Your task to perform on an android device: find snoozed emails in the gmail app Image 0: 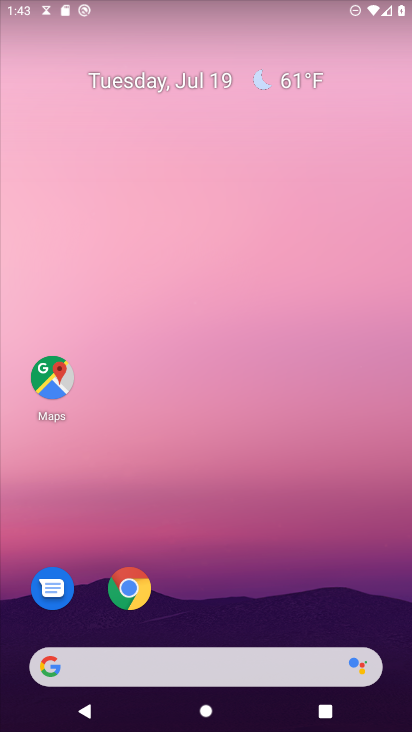
Step 0: drag from (311, 688) to (213, 125)
Your task to perform on an android device: find snoozed emails in the gmail app Image 1: 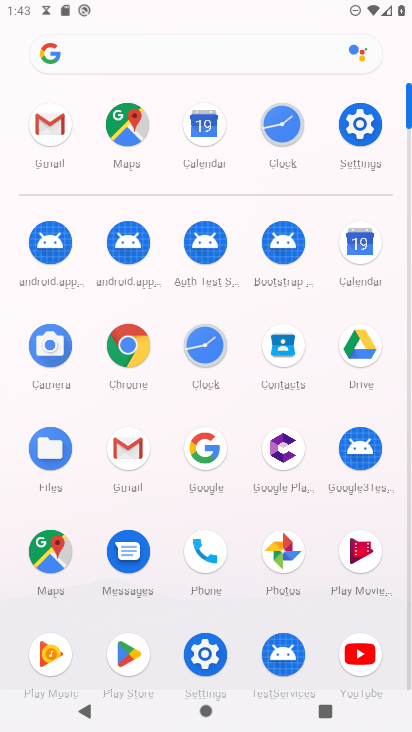
Step 1: click (142, 460)
Your task to perform on an android device: find snoozed emails in the gmail app Image 2: 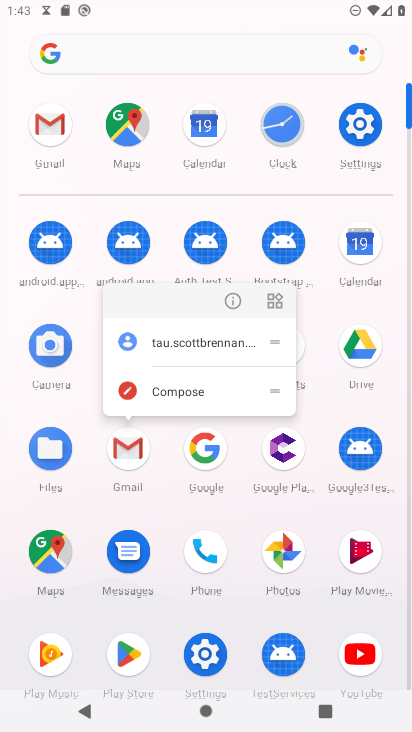
Step 2: click (137, 456)
Your task to perform on an android device: find snoozed emails in the gmail app Image 3: 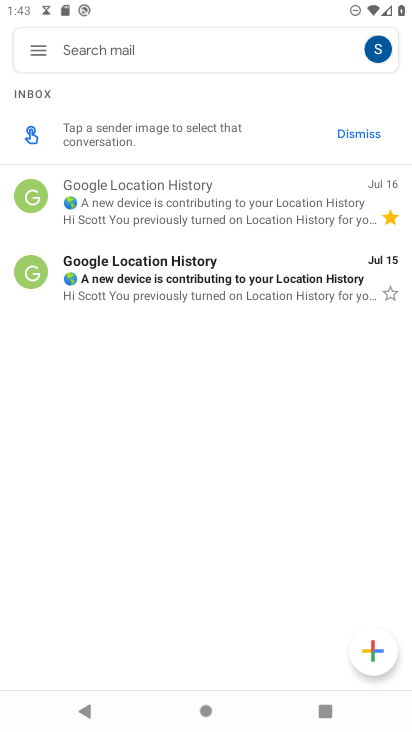
Step 3: click (28, 54)
Your task to perform on an android device: find snoozed emails in the gmail app Image 4: 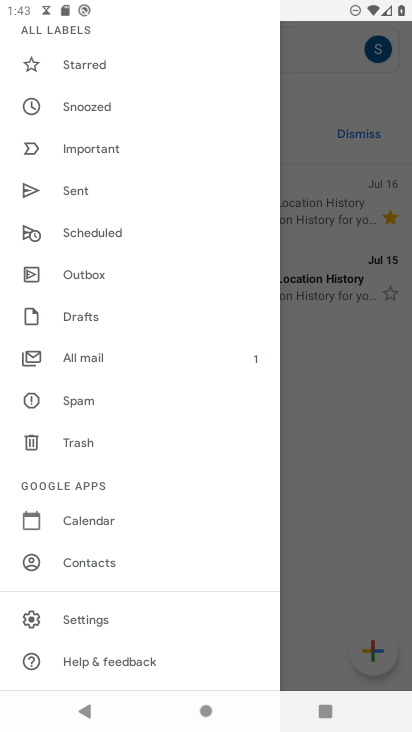
Step 4: click (92, 102)
Your task to perform on an android device: find snoozed emails in the gmail app Image 5: 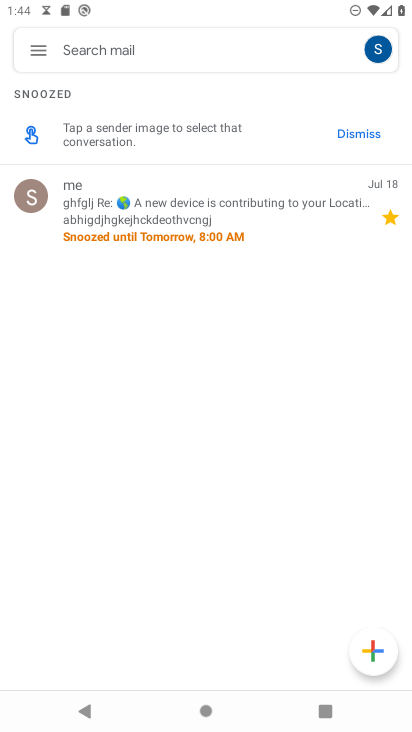
Step 5: task complete